Your task to perform on an android device: show emergency info Image 0: 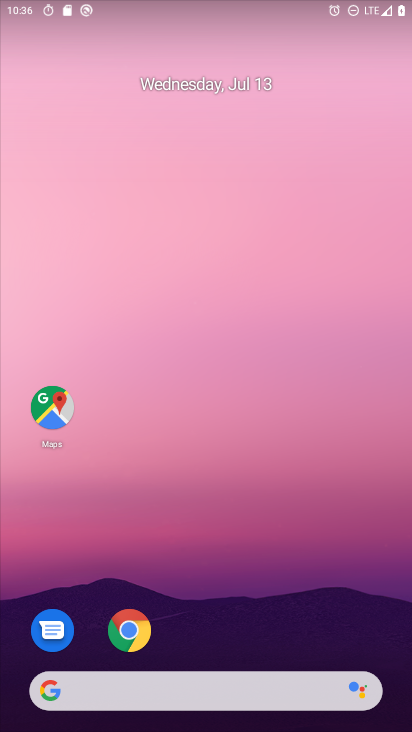
Step 0: drag from (393, 662) to (267, 33)
Your task to perform on an android device: show emergency info Image 1: 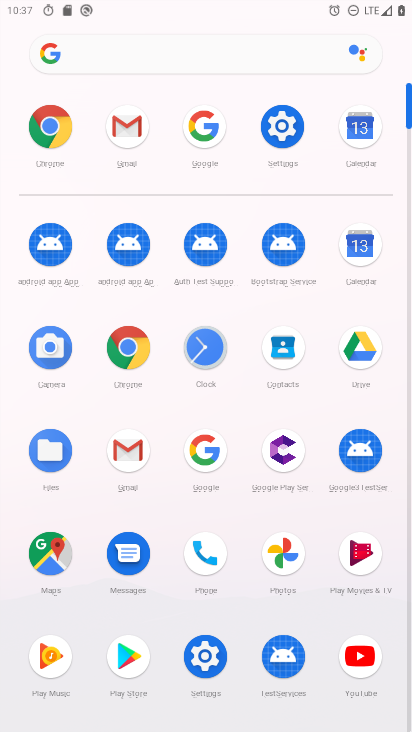
Step 1: click (293, 126)
Your task to perform on an android device: show emergency info Image 2: 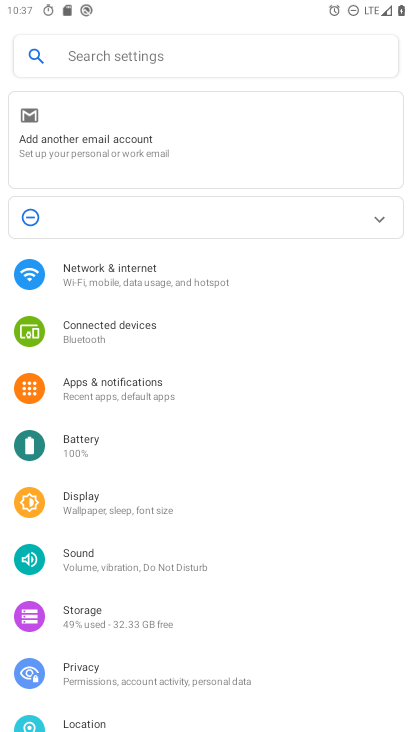
Step 2: drag from (117, 674) to (191, 53)
Your task to perform on an android device: show emergency info Image 3: 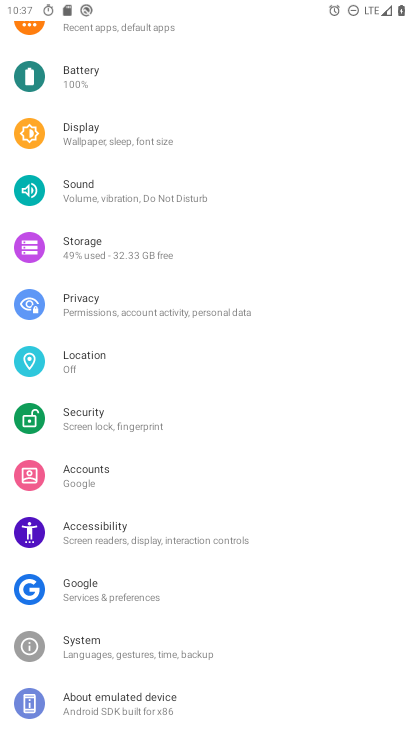
Step 3: click (103, 712)
Your task to perform on an android device: show emergency info Image 4: 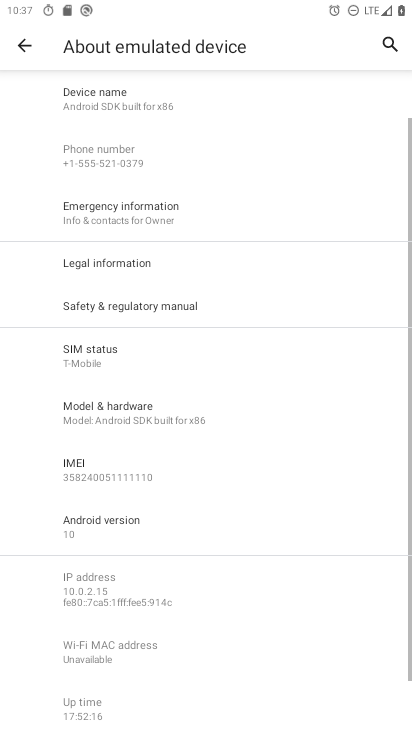
Step 4: click (143, 206)
Your task to perform on an android device: show emergency info Image 5: 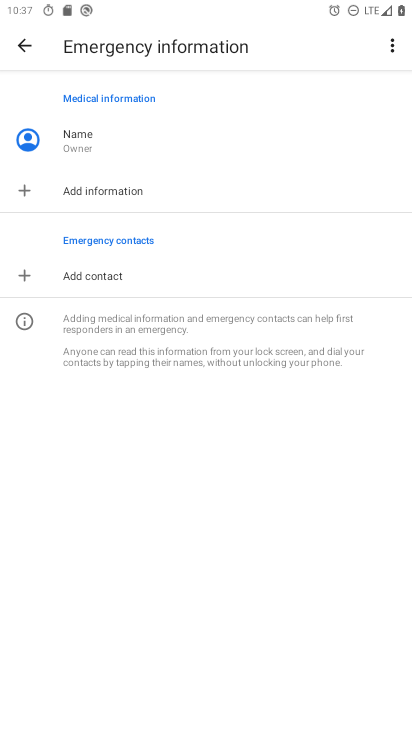
Step 5: task complete